Your task to perform on an android device: Go to display settings Image 0: 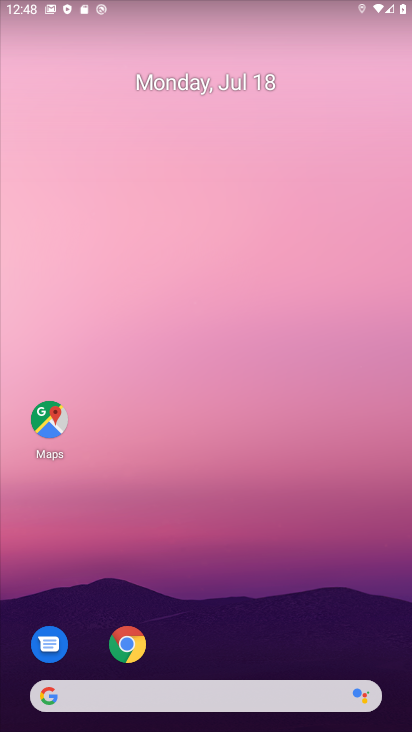
Step 0: drag from (252, 630) to (244, 187)
Your task to perform on an android device: Go to display settings Image 1: 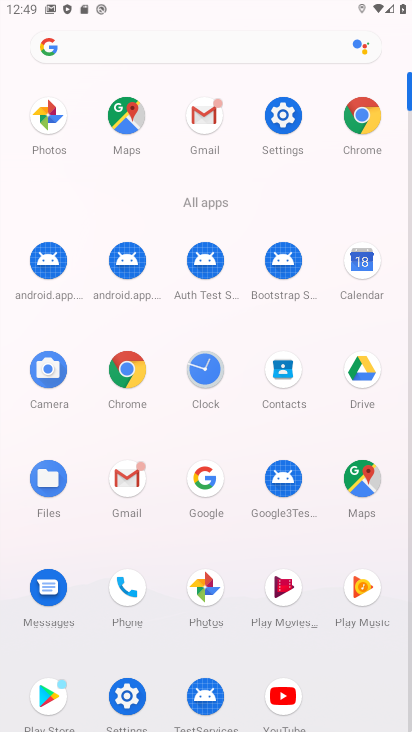
Step 1: click (276, 121)
Your task to perform on an android device: Go to display settings Image 2: 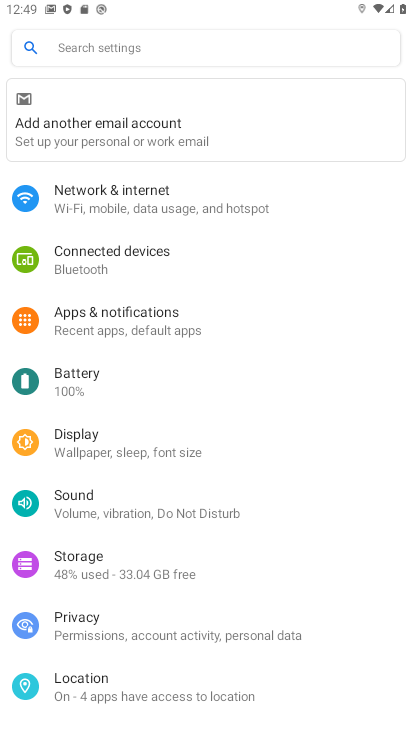
Step 2: click (147, 438)
Your task to perform on an android device: Go to display settings Image 3: 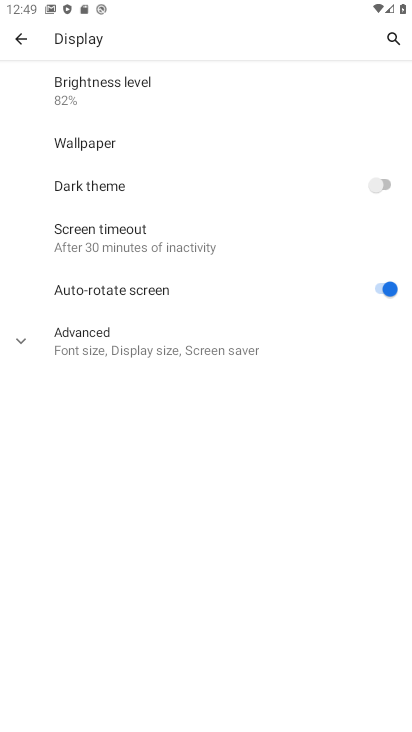
Step 3: task complete